Your task to perform on an android device: Go to settings Image 0: 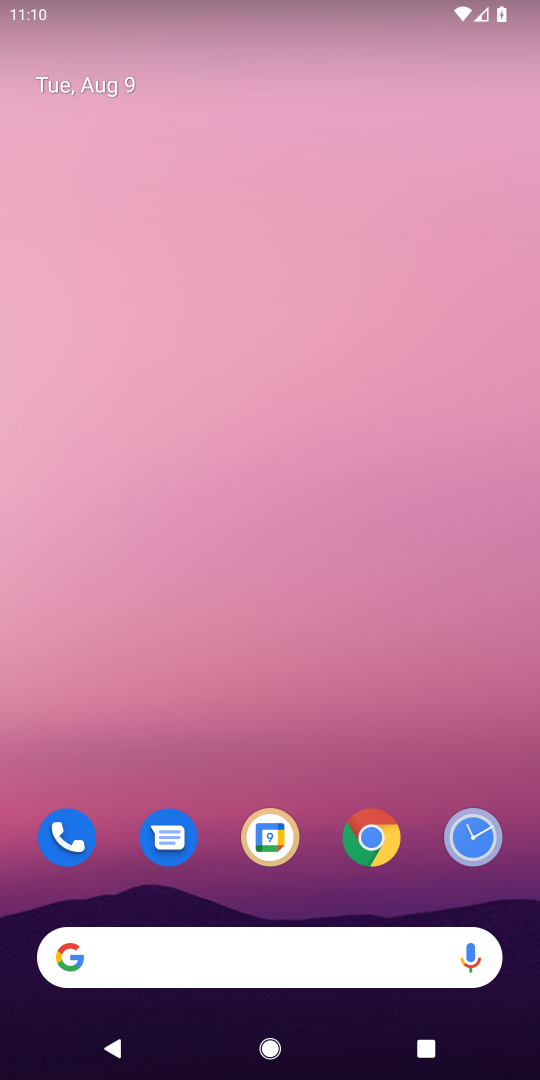
Step 0: drag from (318, 875) to (318, 20)
Your task to perform on an android device: Go to settings Image 1: 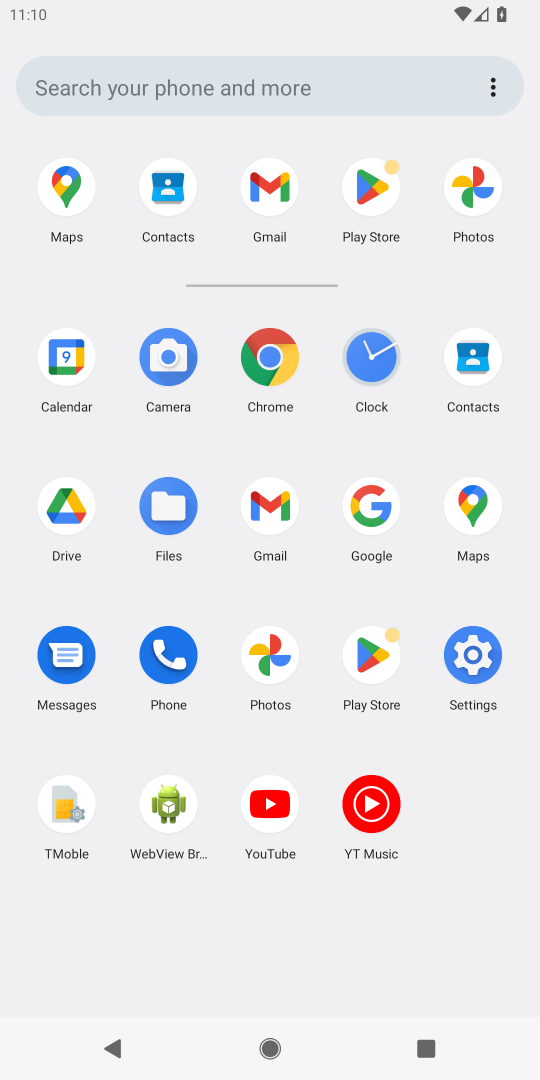
Step 1: click (472, 648)
Your task to perform on an android device: Go to settings Image 2: 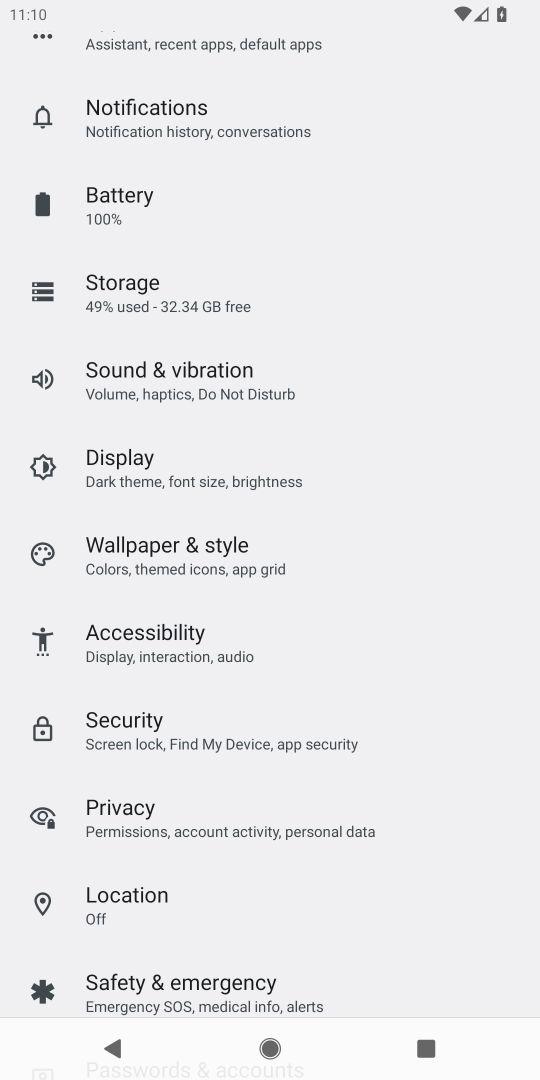
Step 2: task complete